Your task to perform on an android device: Do I have any events tomorrow? Image 0: 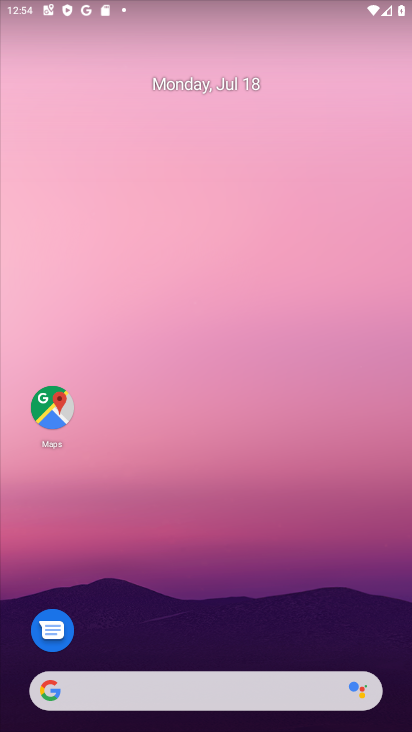
Step 0: drag from (304, 709) to (293, 68)
Your task to perform on an android device: Do I have any events tomorrow? Image 1: 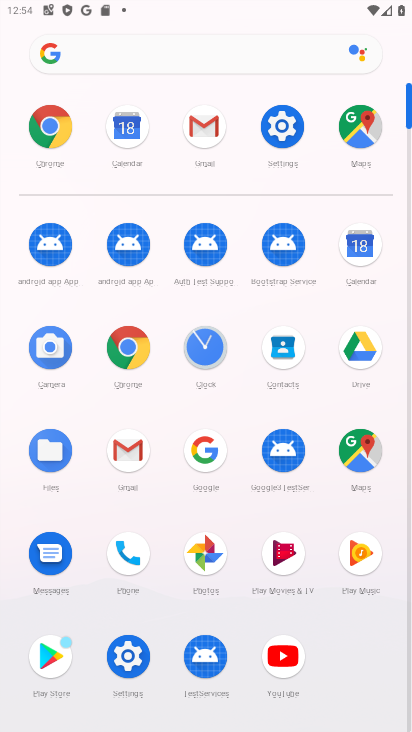
Step 1: click (357, 250)
Your task to perform on an android device: Do I have any events tomorrow? Image 2: 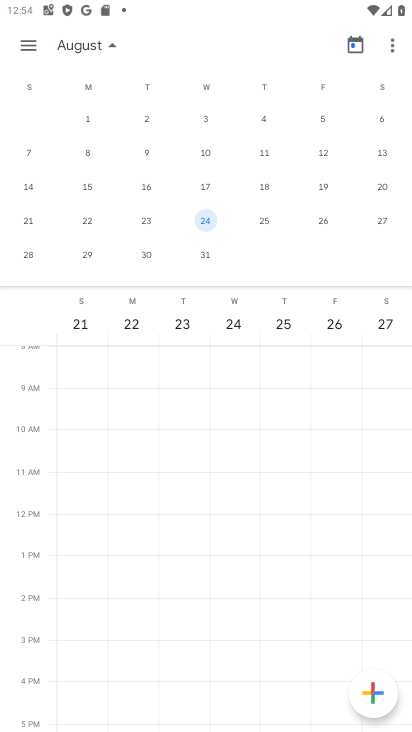
Step 2: drag from (37, 160) to (347, 193)
Your task to perform on an android device: Do I have any events tomorrow? Image 3: 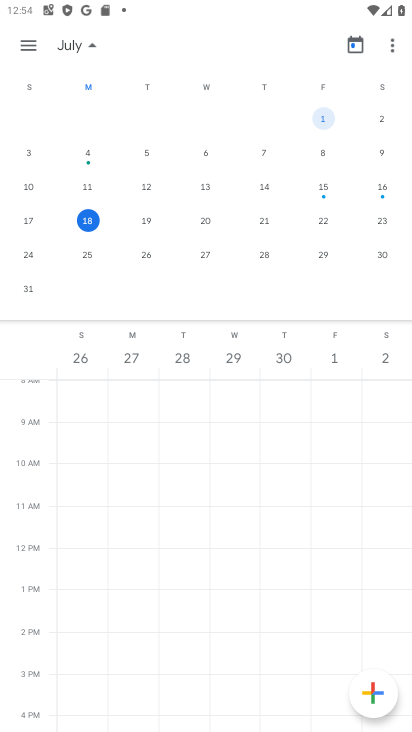
Step 3: click (150, 218)
Your task to perform on an android device: Do I have any events tomorrow? Image 4: 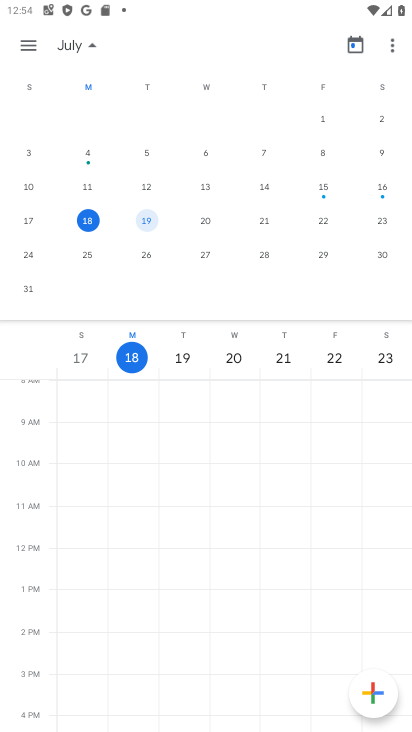
Step 4: task complete